Your task to perform on an android device: toggle airplane mode Image 0: 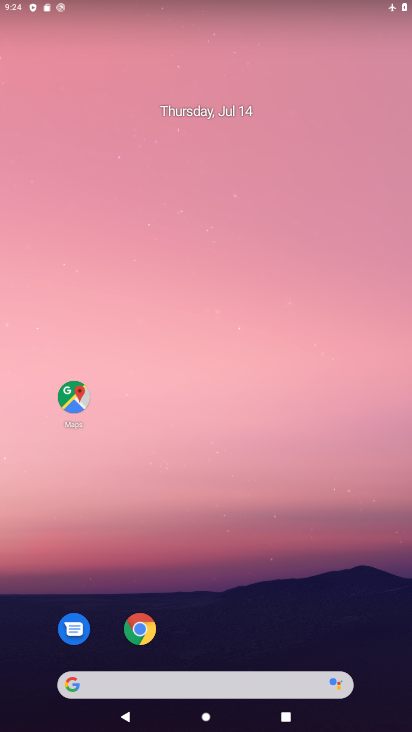
Step 0: drag from (217, 638) to (248, 37)
Your task to perform on an android device: toggle airplane mode Image 1: 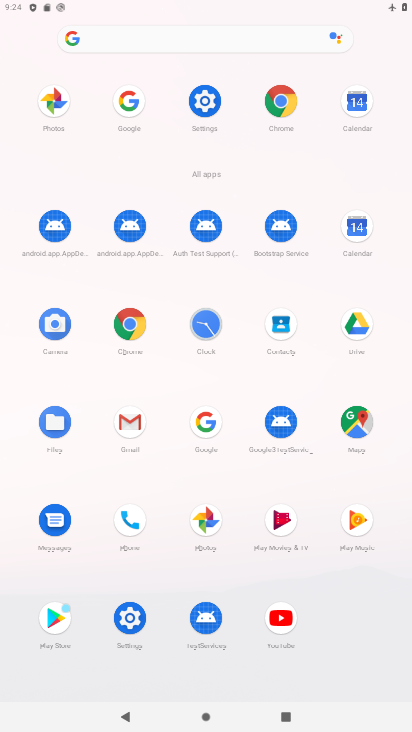
Step 1: click (200, 94)
Your task to perform on an android device: toggle airplane mode Image 2: 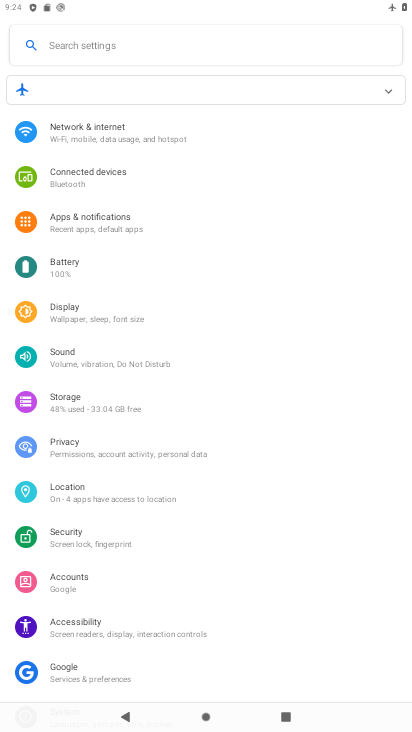
Step 2: click (132, 134)
Your task to perform on an android device: toggle airplane mode Image 3: 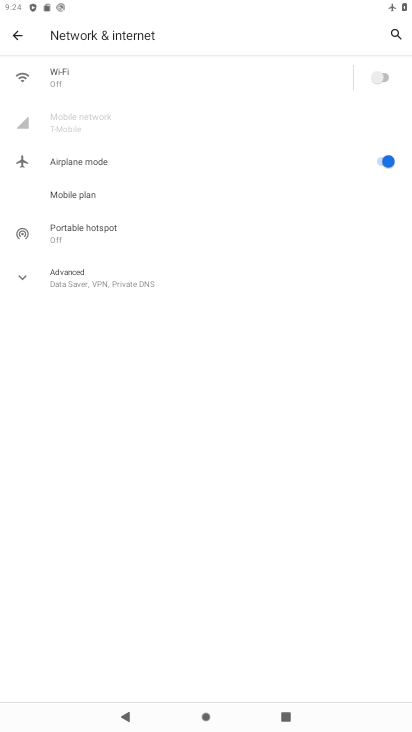
Step 3: click (391, 160)
Your task to perform on an android device: toggle airplane mode Image 4: 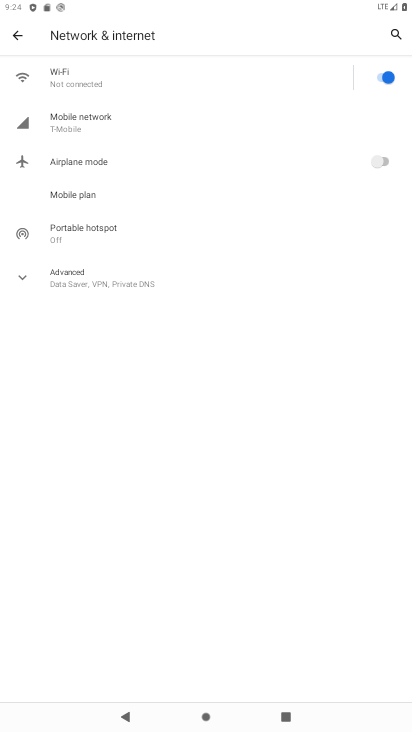
Step 4: task complete